Your task to perform on an android device: toggle javascript in the chrome app Image 0: 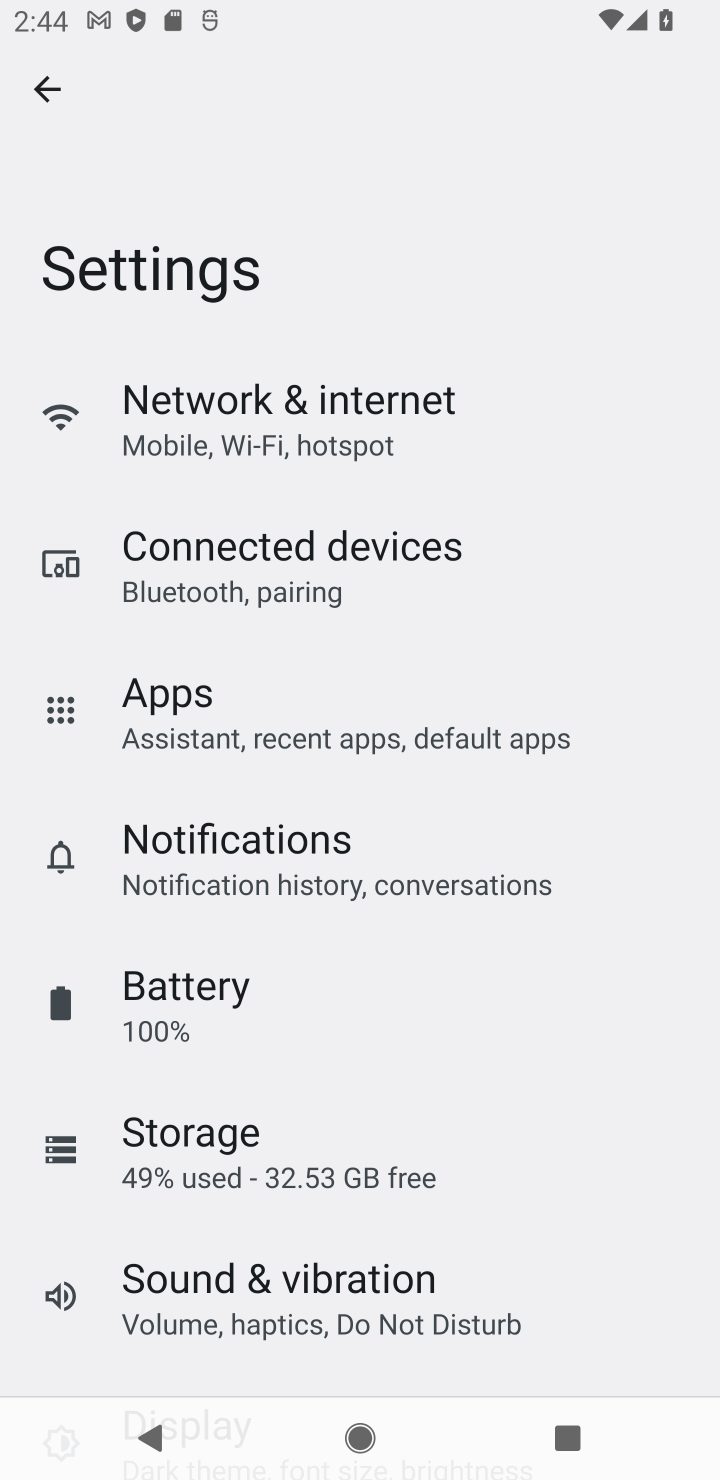
Step 0: press home button
Your task to perform on an android device: toggle javascript in the chrome app Image 1: 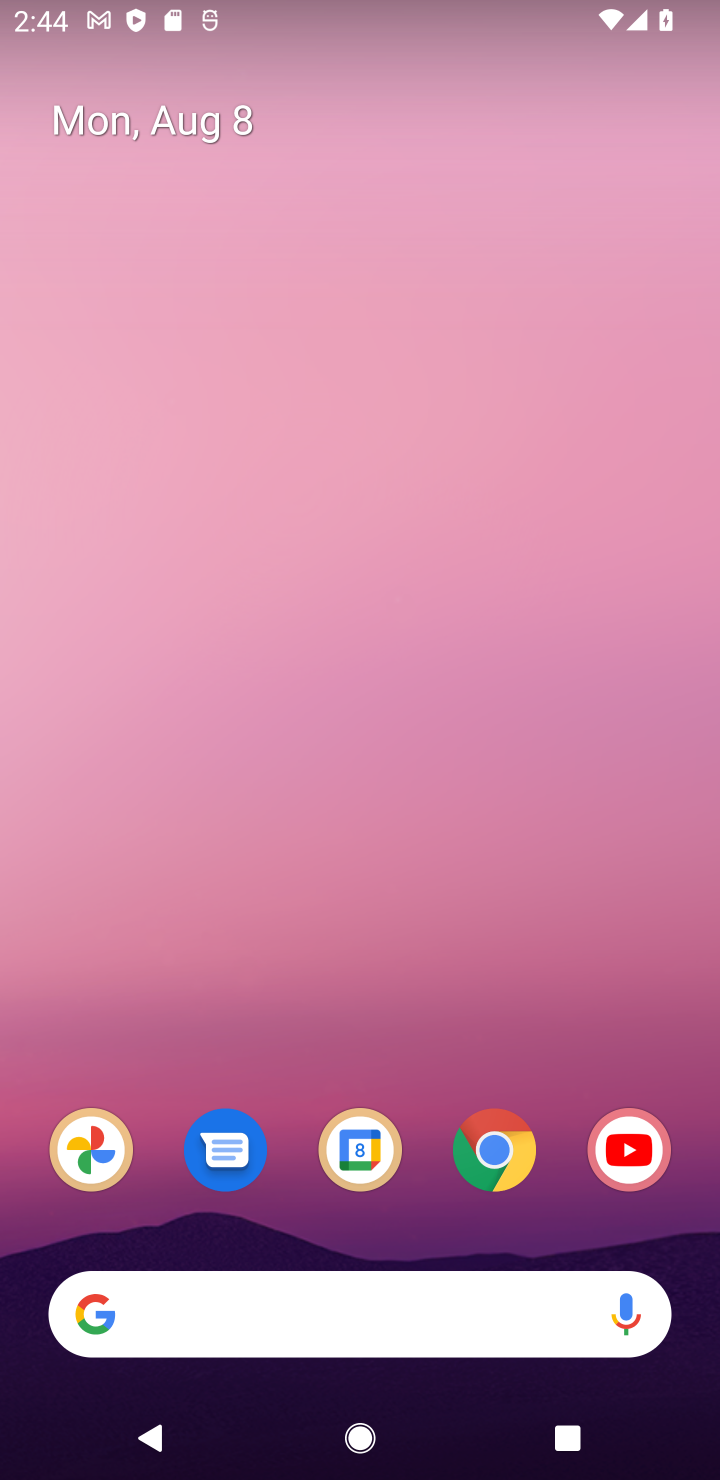
Step 1: click (475, 1178)
Your task to perform on an android device: toggle javascript in the chrome app Image 2: 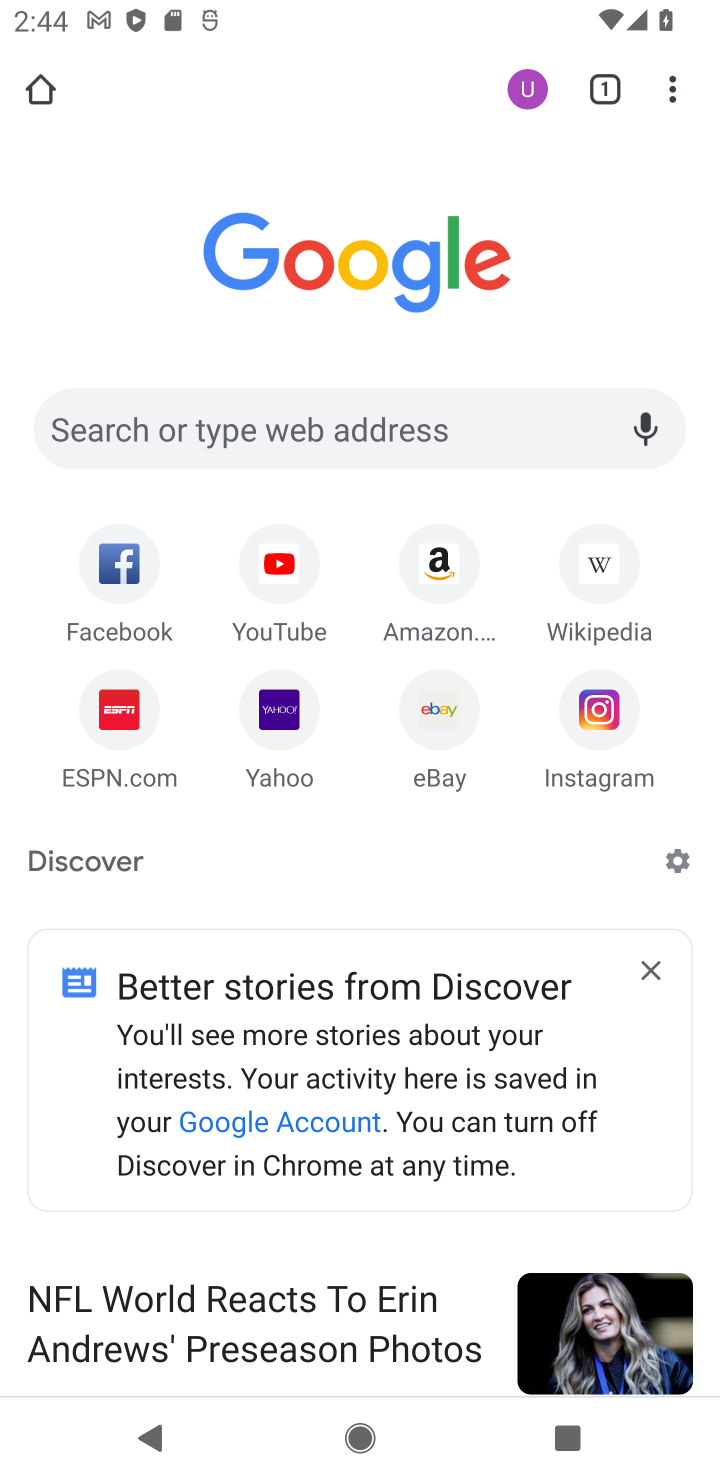
Step 2: click (677, 68)
Your task to perform on an android device: toggle javascript in the chrome app Image 3: 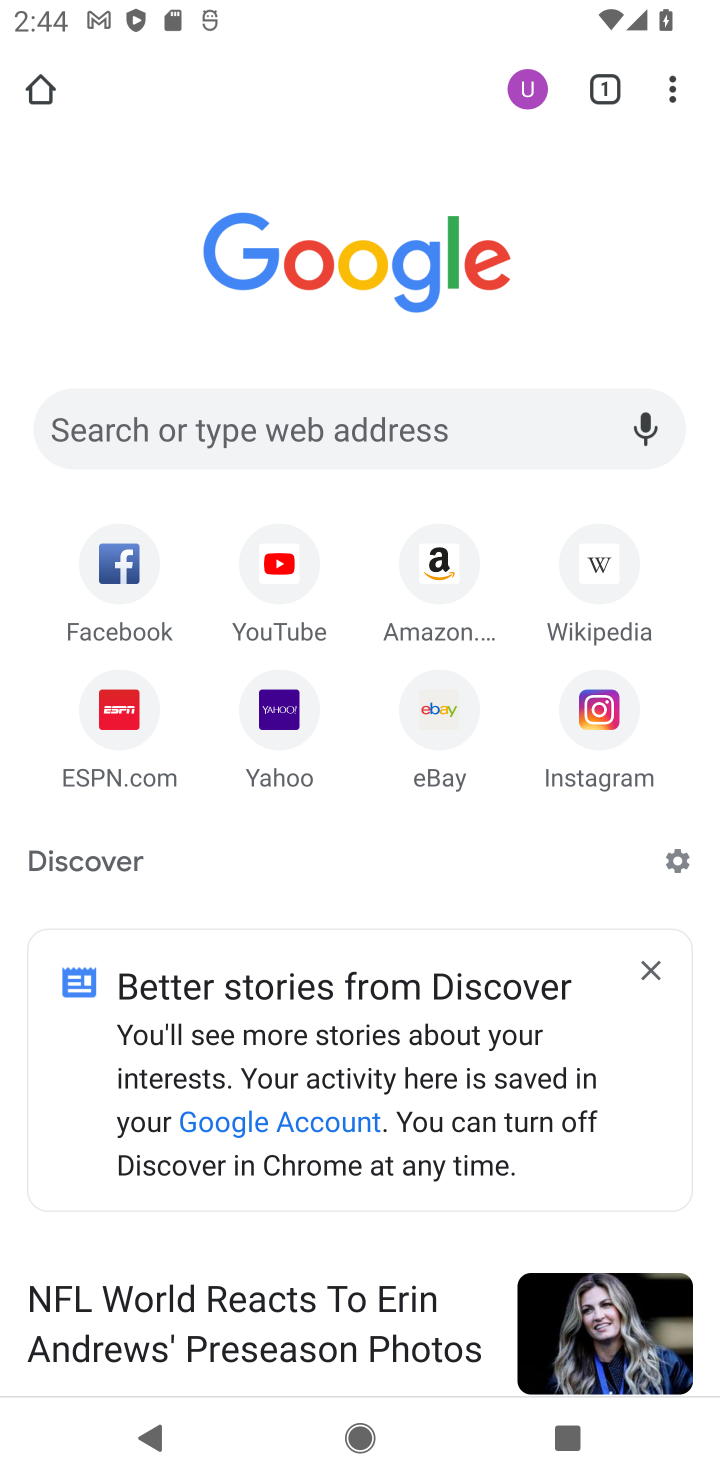
Step 3: click (679, 96)
Your task to perform on an android device: toggle javascript in the chrome app Image 4: 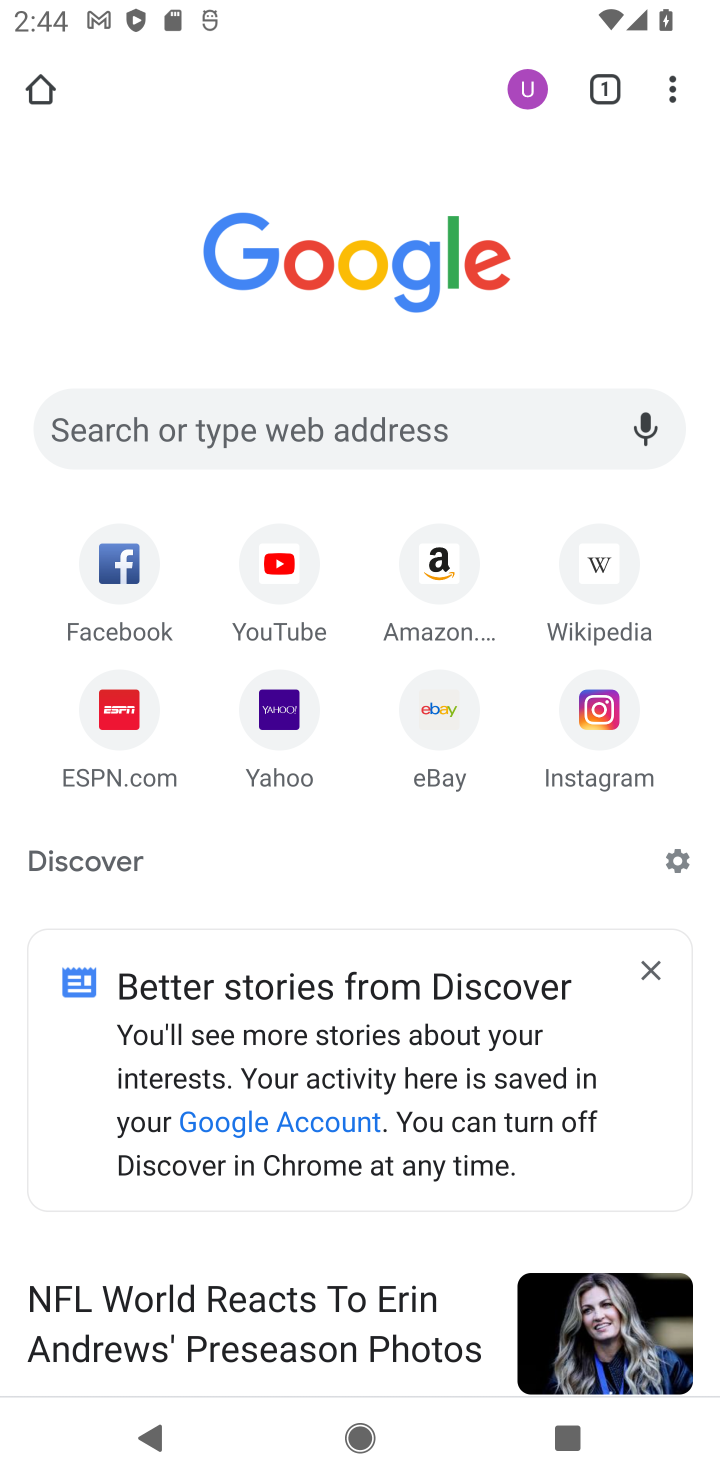
Step 4: click (676, 95)
Your task to perform on an android device: toggle javascript in the chrome app Image 5: 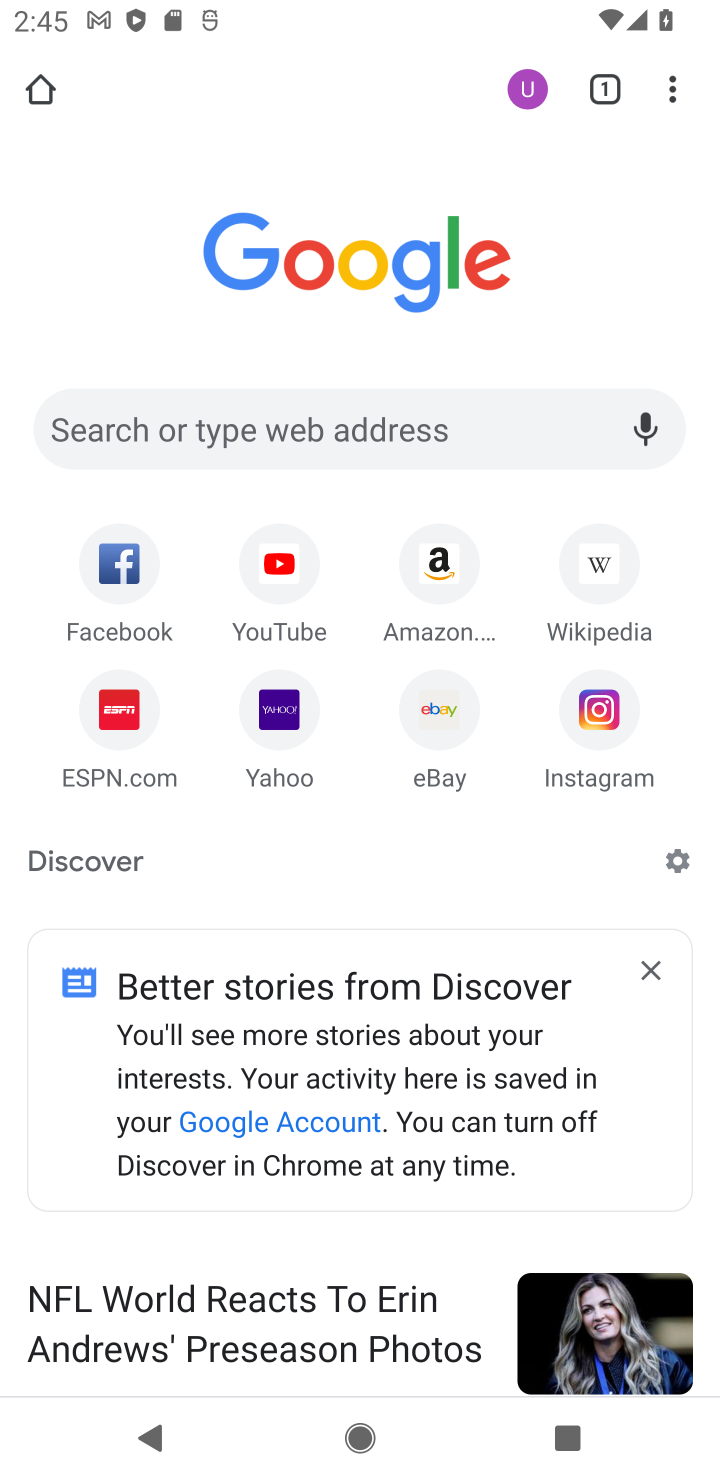
Step 5: click (683, 103)
Your task to perform on an android device: toggle javascript in the chrome app Image 6: 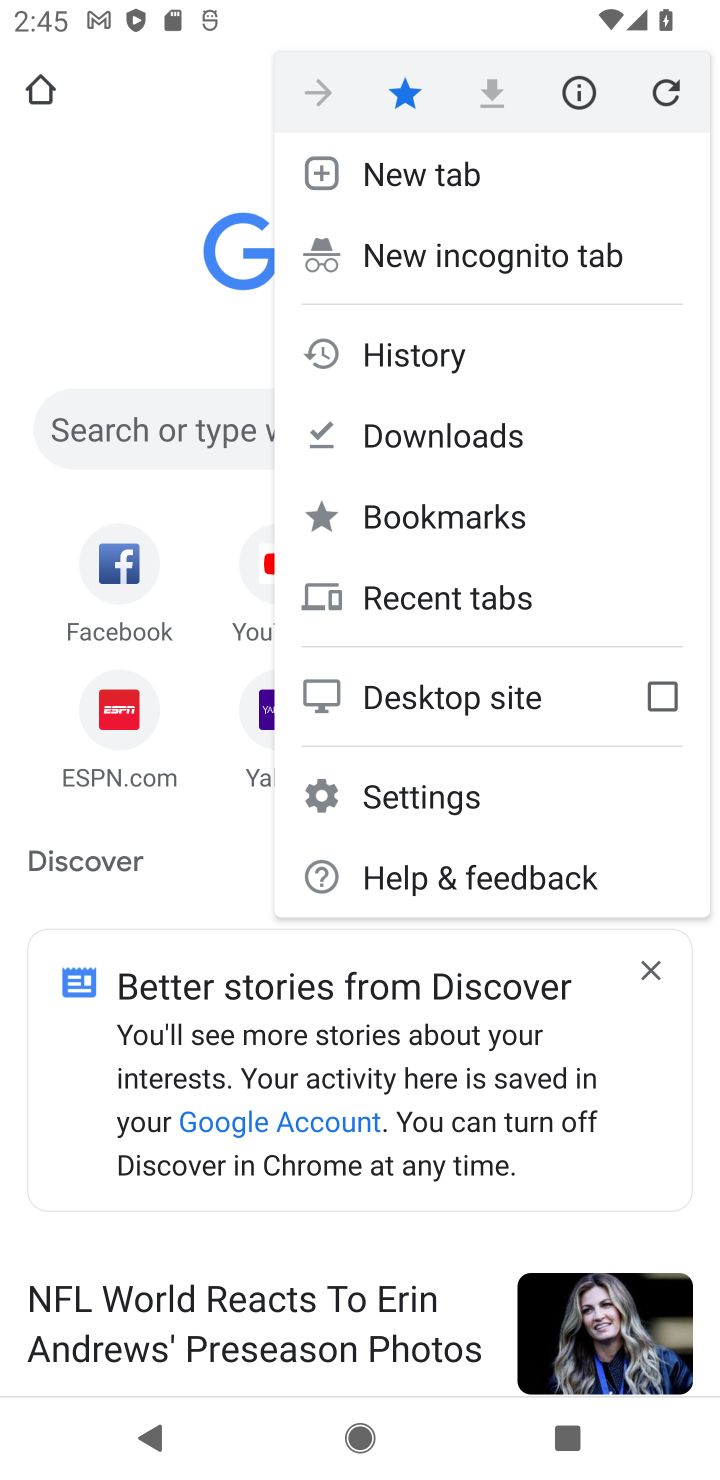
Step 6: click (336, 807)
Your task to perform on an android device: toggle javascript in the chrome app Image 7: 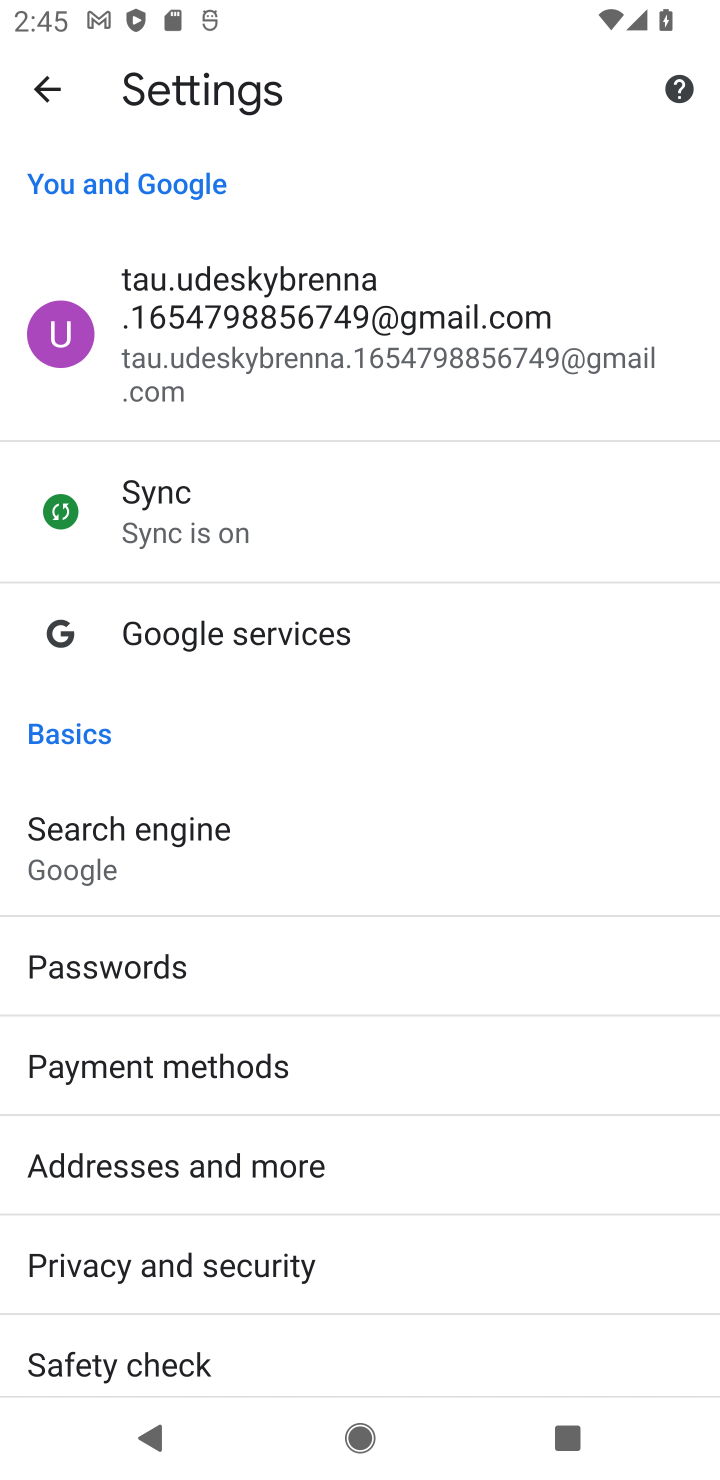
Step 7: task complete